Your task to perform on an android device: Search for Mexican restaurants on Maps Image 0: 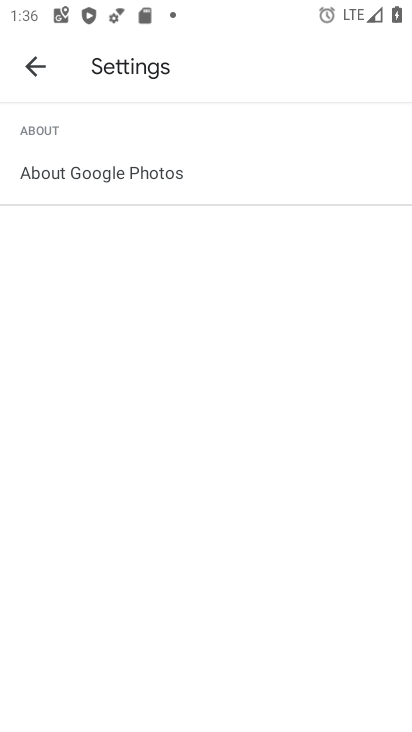
Step 0: press home button
Your task to perform on an android device: Search for Mexican restaurants on Maps Image 1: 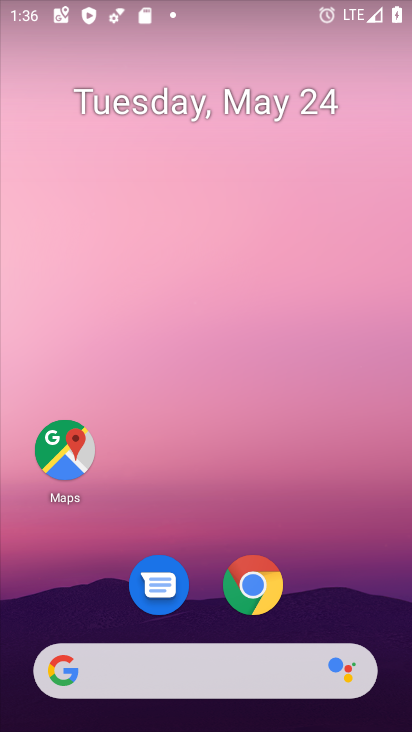
Step 1: click (68, 446)
Your task to perform on an android device: Search for Mexican restaurants on Maps Image 2: 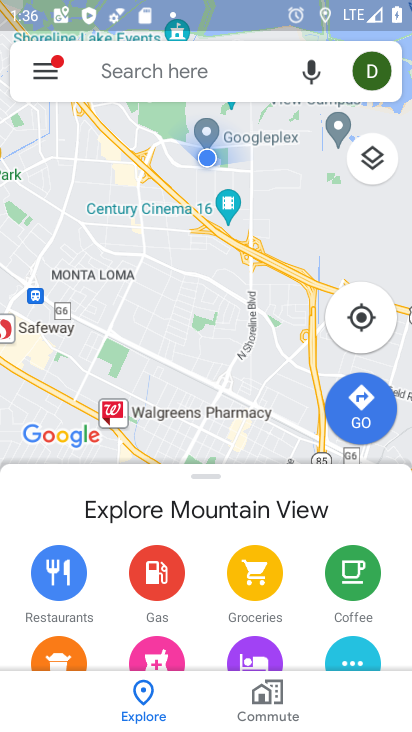
Step 2: click (210, 64)
Your task to perform on an android device: Search for Mexican restaurants on Maps Image 3: 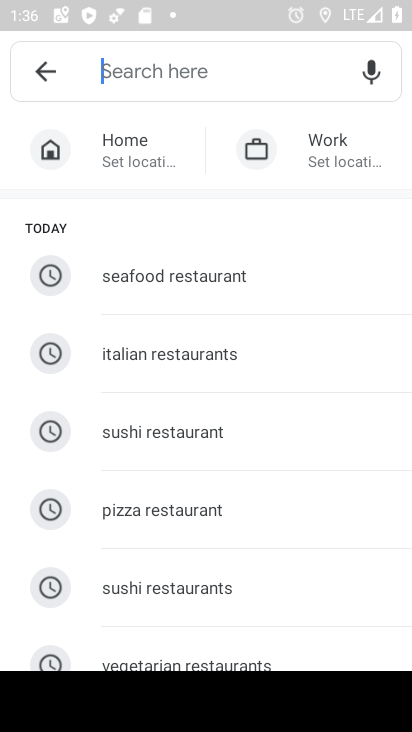
Step 3: drag from (211, 540) to (237, 253)
Your task to perform on an android device: Search for Mexican restaurants on Maps Image 4: 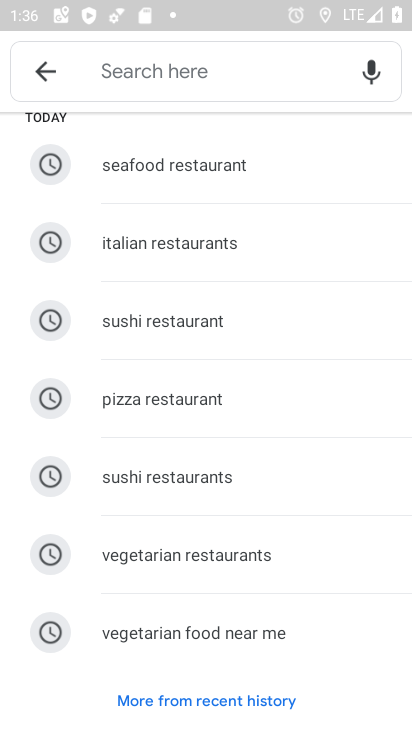
Step 4: click (236, 71)
Your task to perform on an android device: Search for Mexican restaurants on Maps Image 5: 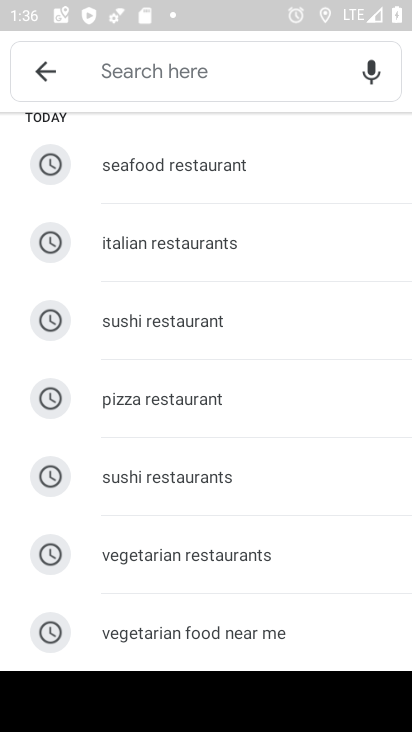
Step 5: type "mexican restaurants"
Your task to perform on an android device: Search for Mexican restaurants on Maps Image 6: 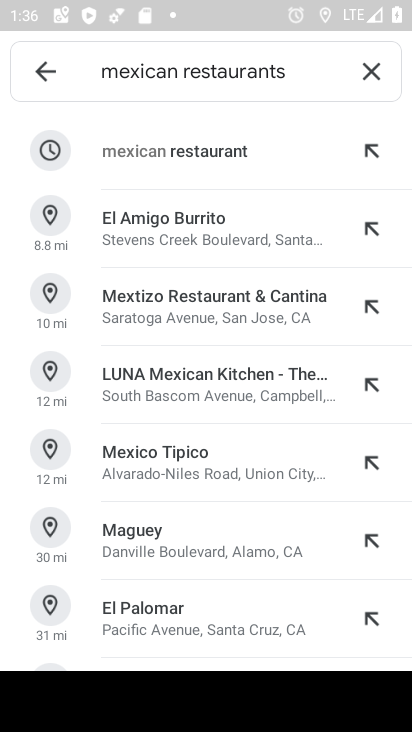
Step 6: click (215, 161)
Your task to perform on an android device: Search for Mexican restaurants on Maps Image 7: 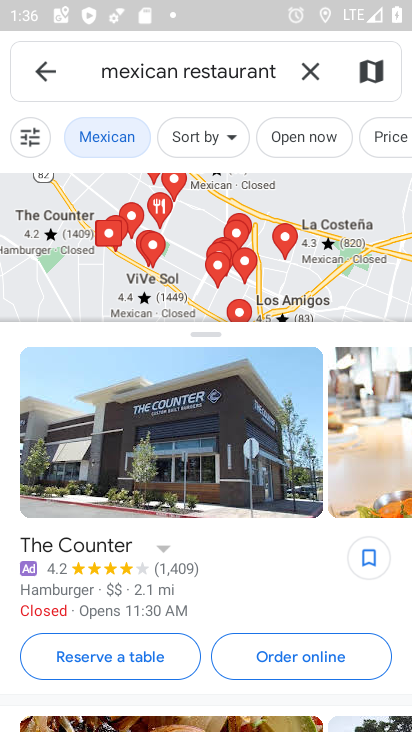
Step 7: task complete